Your task to perform on an android device: find photos in the google photos app Image 0: 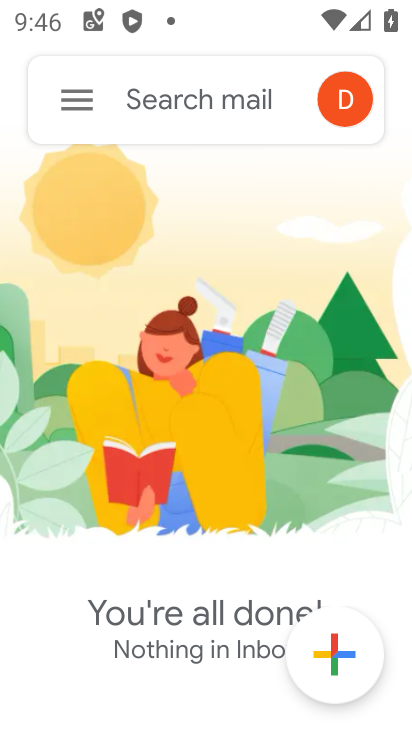
Step 0: click (77, 296)
Your task to perform on an android device: find photos in the google photos app Image 1: 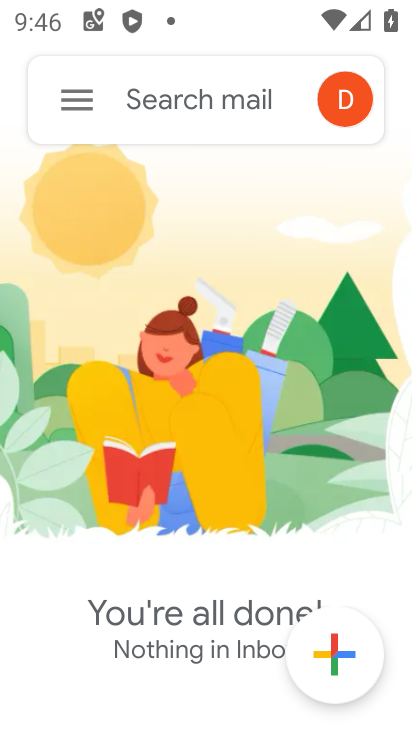
Step 1: press home button
Your task to perform on an android device: find photos in the google photos app Image 2: 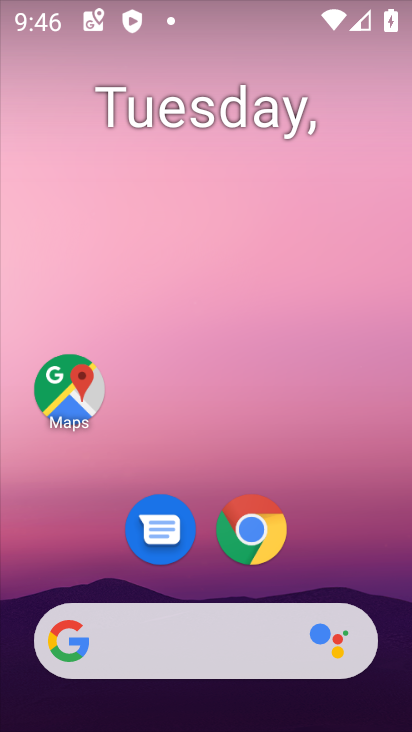
Step 2: drag from (189, 691) to (200, 37)
Your task to perform on an android device: find photos in the google photos app Image 3: 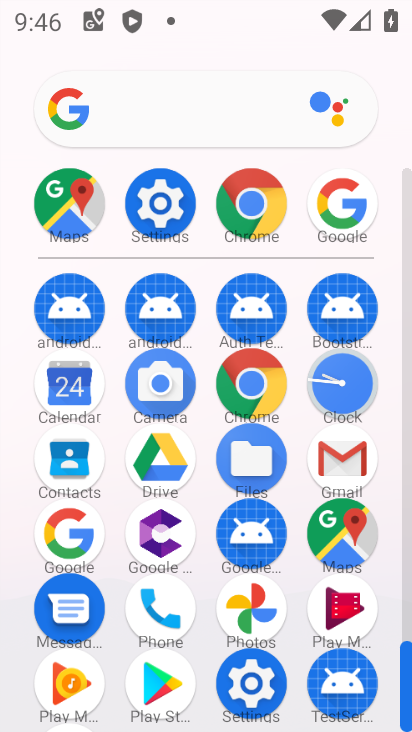
Step 3: click (256, 604)
Your task to perform on an android device: find photos in the google photos app Image 4: 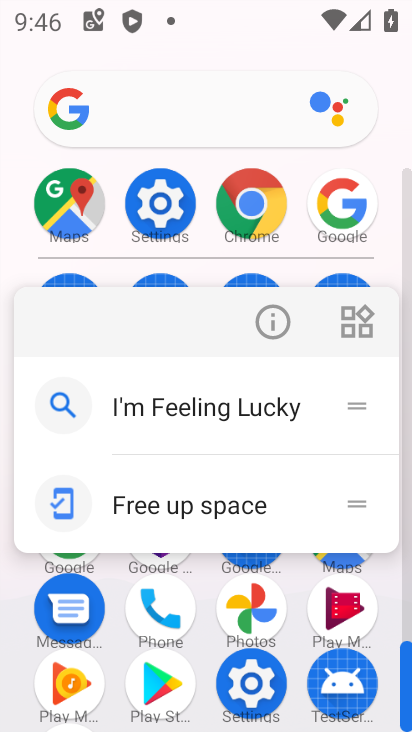
Step 4: click (252, 605)
Your task to perform on an android device: find photos in the google photos app Image 5: 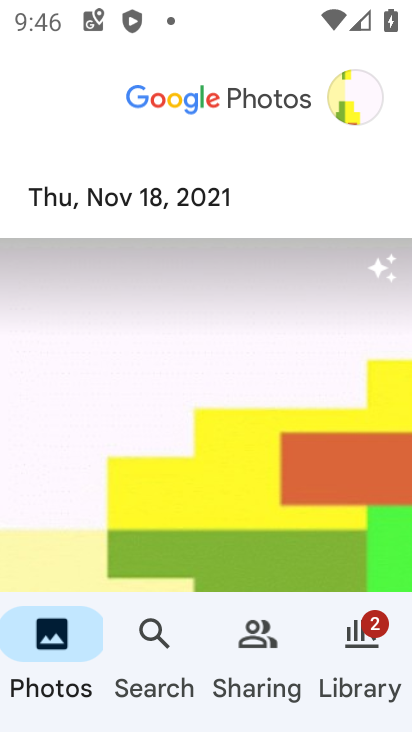
Step 5: click (76, 647)
Your task to perform on an android device: find photos in the google photos app Image 6: 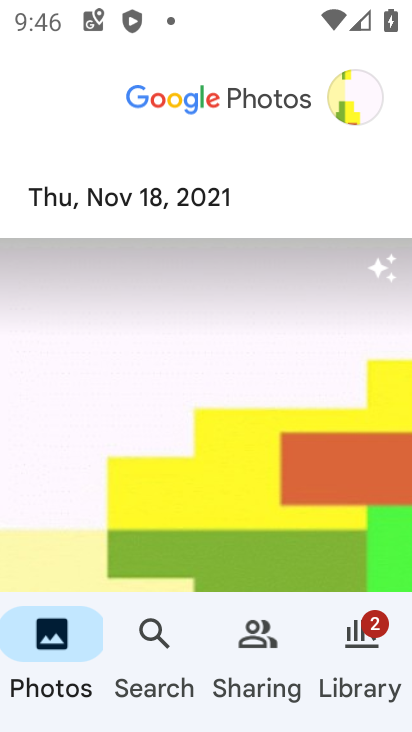
Step 6: task complete